Your task to perform on an android device: toggle improve location accuracy Image 0: 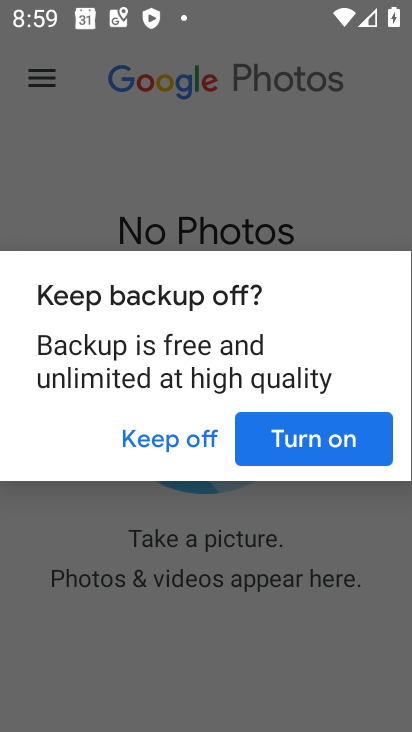
Step 0: press back button
Your task to perform on an android device: toggle improve location accuracy Image 1: 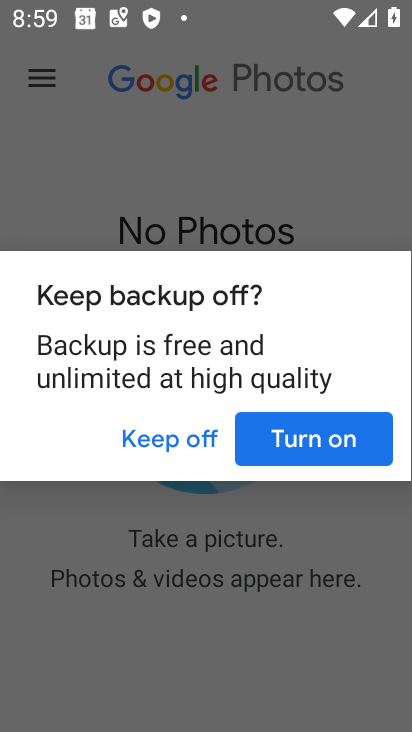
Step 1: press home button
Your task to perform on an android device: toggle improve location accuracy Image 2: 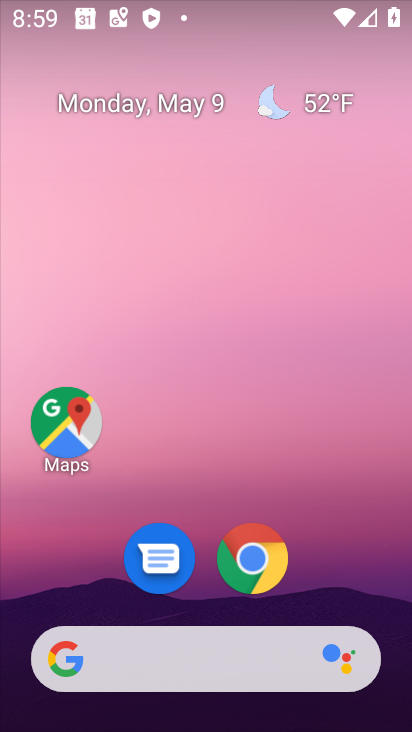
Step 2: drag from (195, 616) to (328, 19)
Your task to perform on an android device: toggle improve location accuracy Image 3: 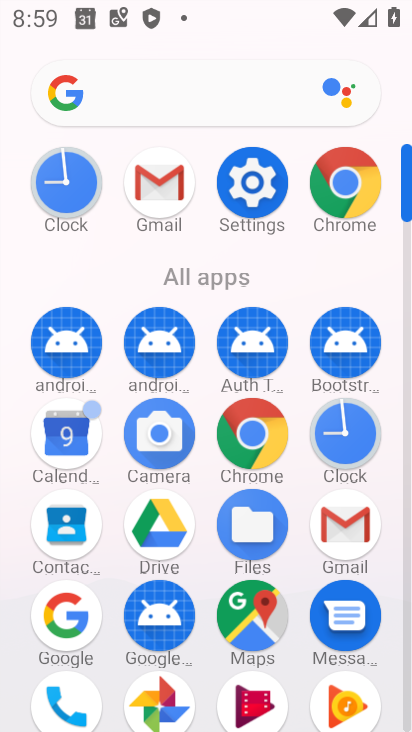
Step 3: click (251, 161)
Your task to perform on an android device: toggle improve location accuracy Image 4: 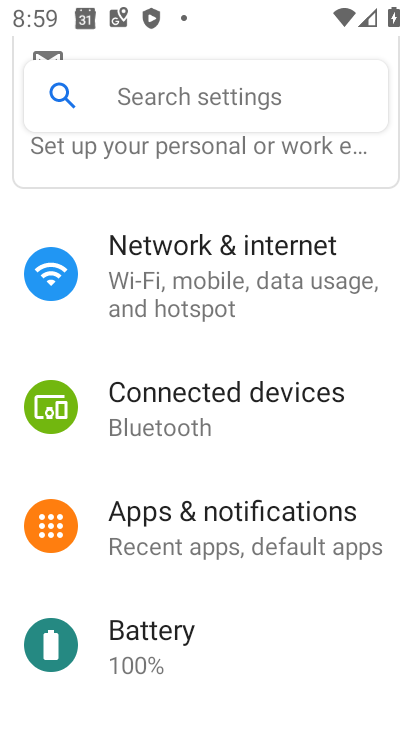
Step 4: drag from (211, 631) to (336, 39)
Your task to perform on an android device: toggle improve location accuracy Image 5: 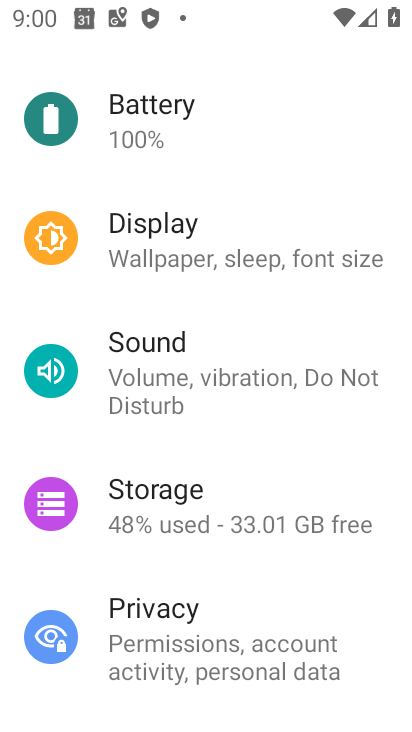
Step 5: drag from (221, 642) to (290, 211)
Your task to perform on an android device: toggle improve location accuracy Image 6: 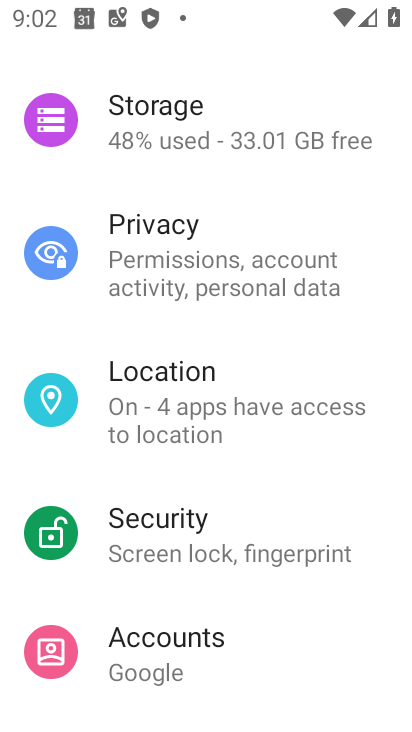
Step 6: click (180, 406)
Your task to perform on an android device: toggle improve location accuracy Image 7: 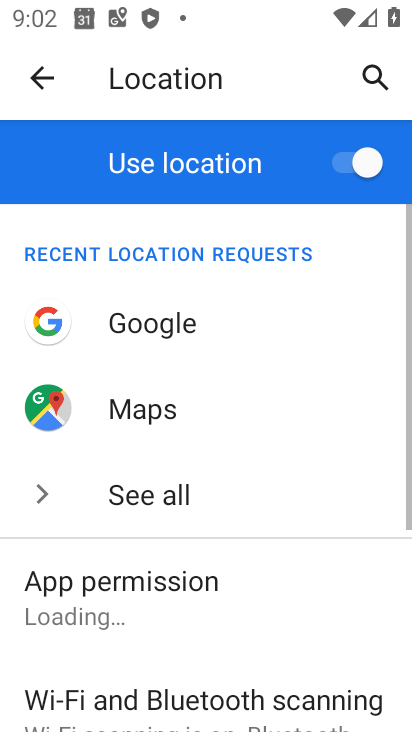
Step 7: drag from (180, 595) to (288, 78)
Your task to perform on an android device: toggle improve location accuracy Image 8: 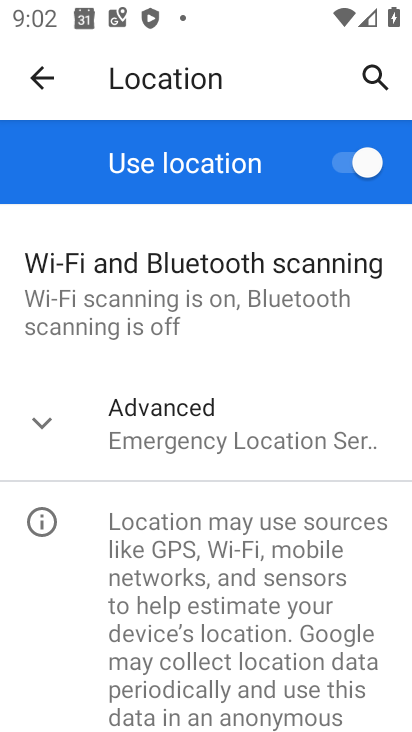
Step 8: click (199, 437)
Your task to perform on an android device: toggle improve location accuracy Image 9: 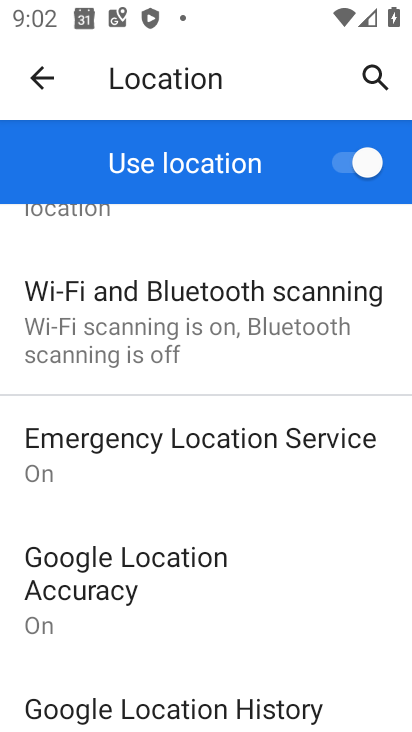
Step 9: drag from (226, 672) to (293, 436)
Your task to perform on an android device: toggle improve location accuracy Image 10: 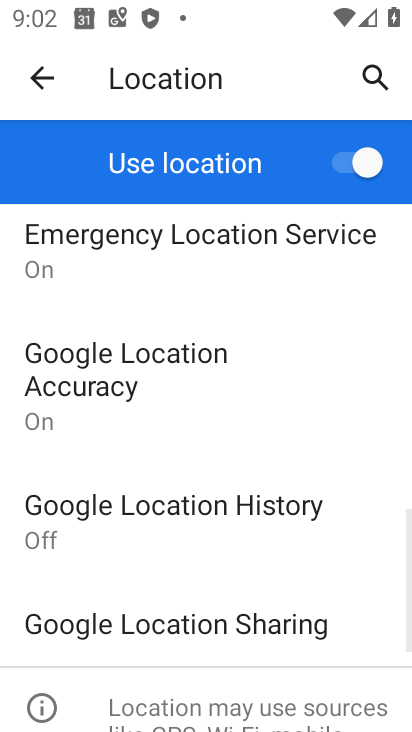
Step 10: click (129, 378)
Your task to perform on an android device: toggle improve location accuracy Image 11: 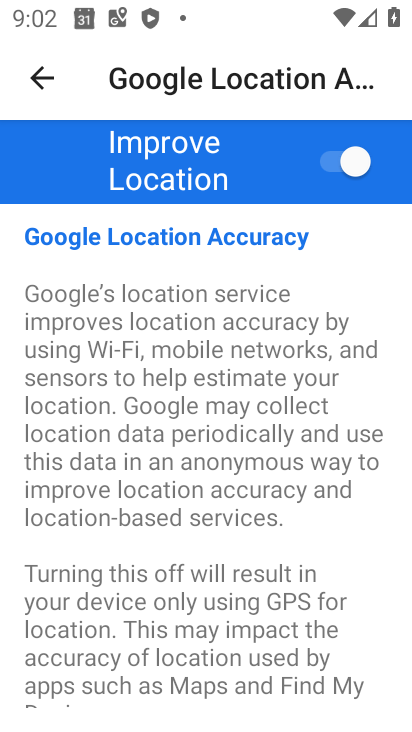
Step 11: task complete